Your task to perform on an android device: Show me popular videos on Youtube Image 0: 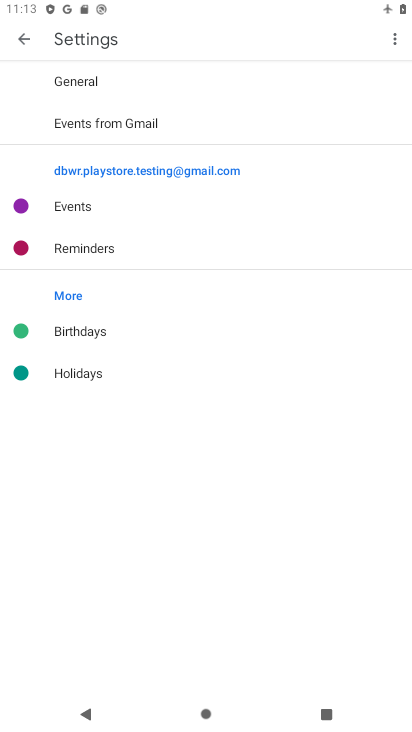
Step 0: press home button
Your task to perform on an android device: Show me popular videos on Youtube Image 1: 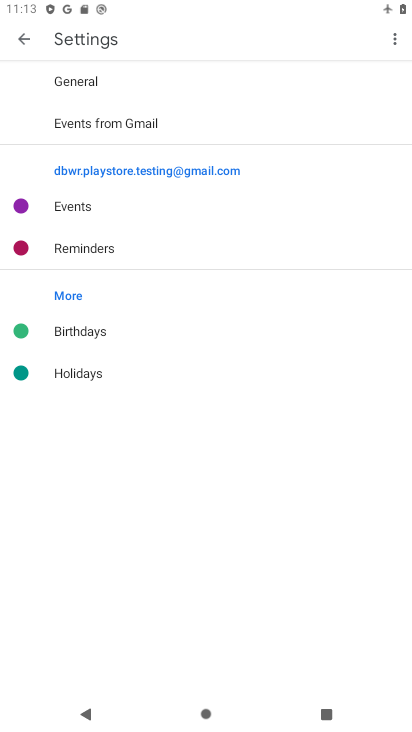
Step 1: press home button
Your task to perform on an android device: Show me popular videos on Youtube Image 2: 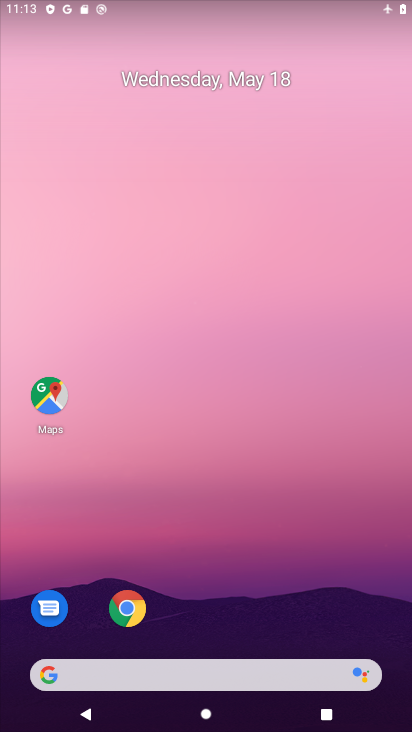
Step 2: drag from (203, 450) to (35, 28)
Your task to perform on an android device: Show me popular videos on Youtube Image 3: 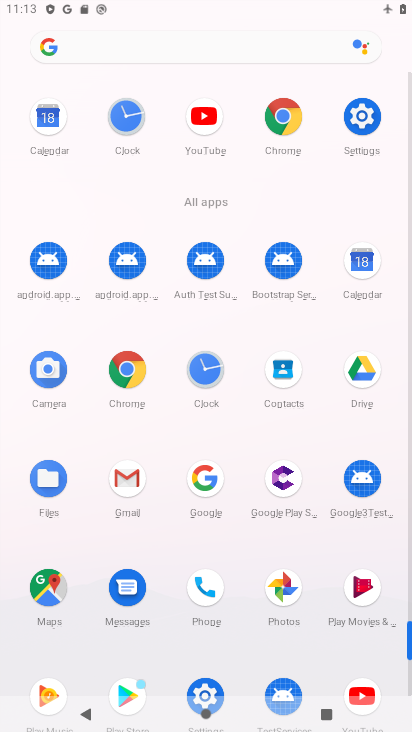
Step 3: click (214, 137)
Your task to perform on an android device: Show me popular videos on Youtube Image 4: 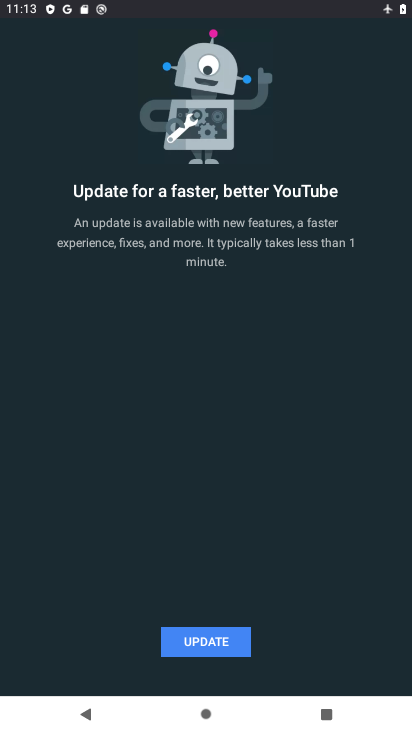
Step 4: click (244, 645)
Your task to perform on an android device: Show me popular videos on Youtube Image 5: 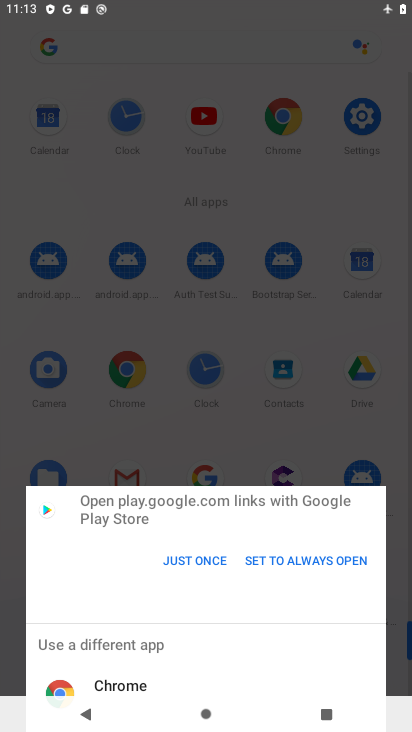
Step 5: click (214, 555)
Your task to perform on an android device: Show me popular videos on Youtube Image 6: 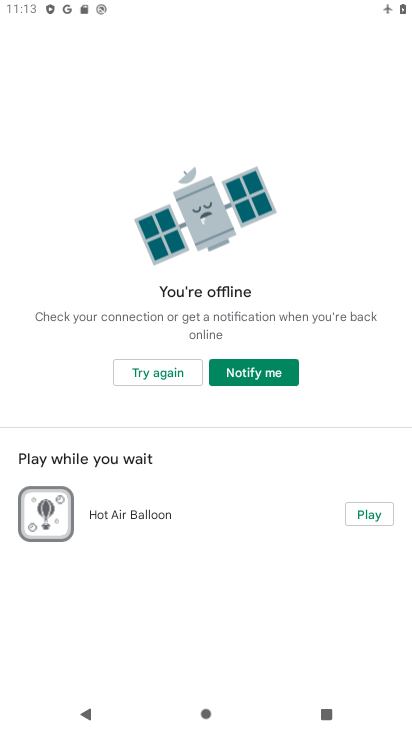
Step 6: task complete